Your task to perform on an android device: set an alarm Image 0: 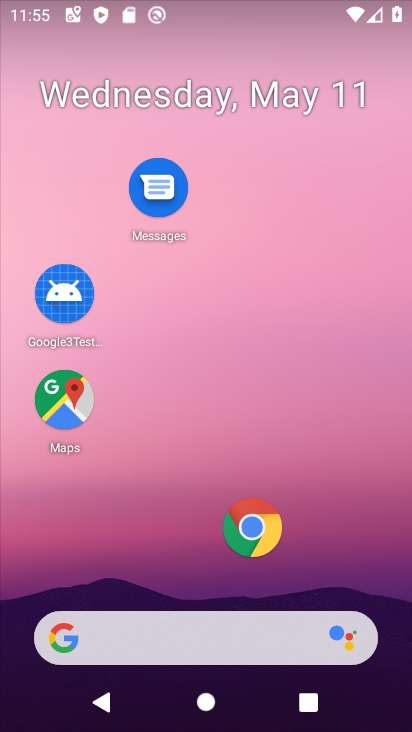
Step 0: drag from (209, 593) to (121, 14)
Your task to perform on an android device: set an alarm Image 1: 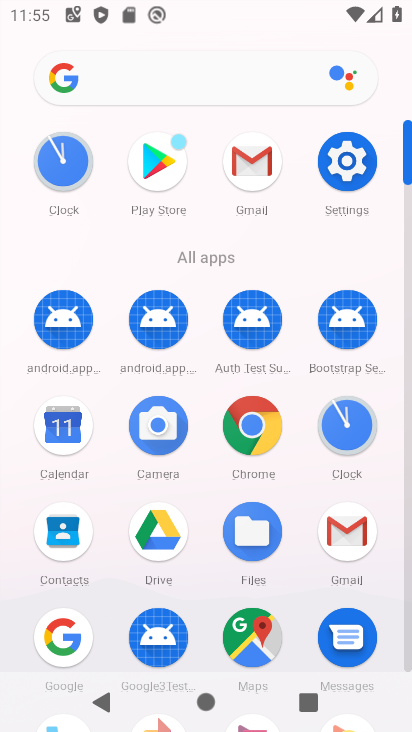
Step 1: click (354, 461)
Your task to perform on an android device: set an alarm Image 2: 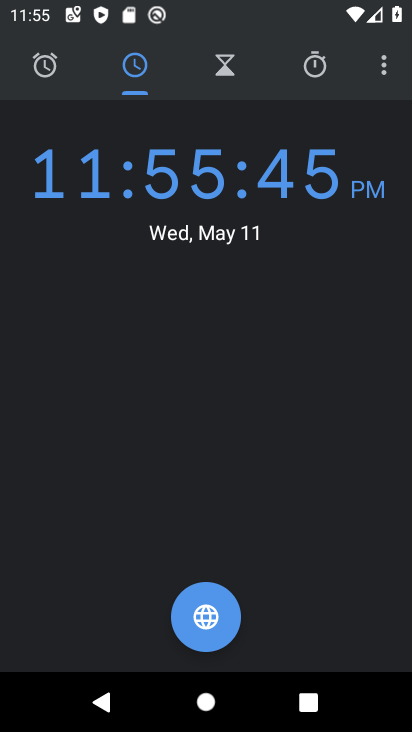
Step 2: click (34, 60)
Your task to perform on an android device: set an alarm Image 3: 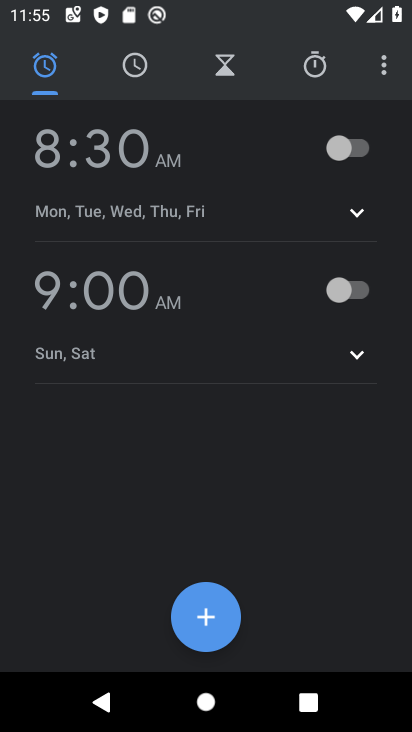
Step 3: click (221, 629)
Your task to perform on an android device: set an alarm Image 4: 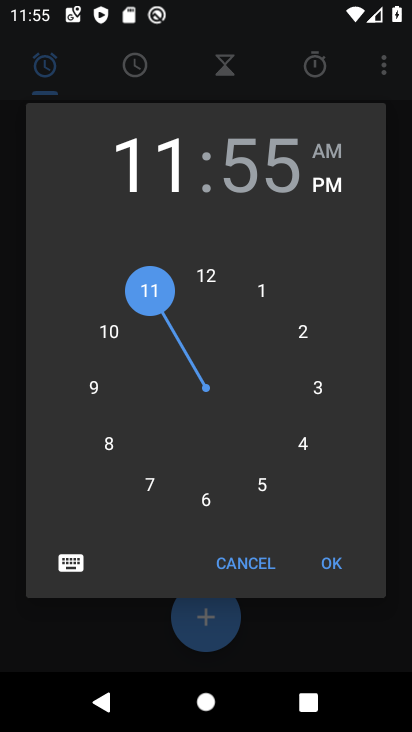
Step 4: click (335, 571)
Your task to perform on an android device: set an alarm Image 5: 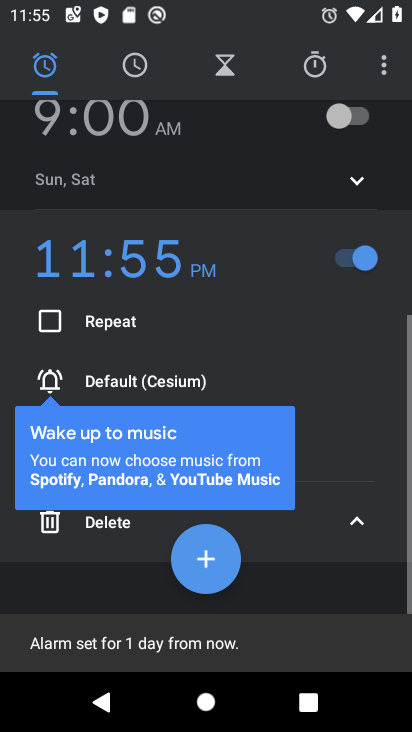
Step 5: task complete